Your task to perform on an android device: Is it going to rain today? Image 0: 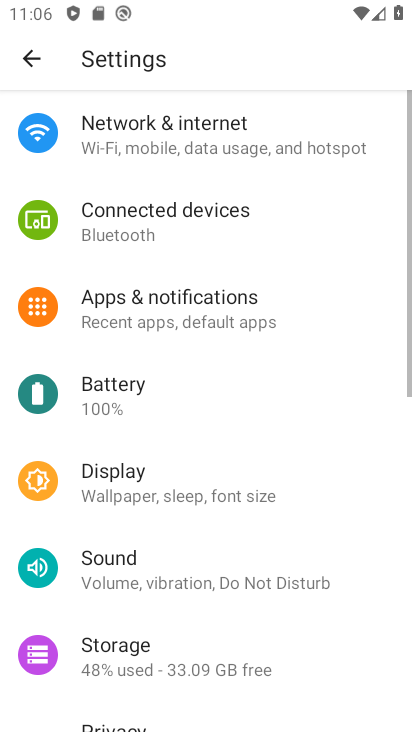
Step 0: press home button
Your task to perform on an android device: Is it going to rain today? Image 1: 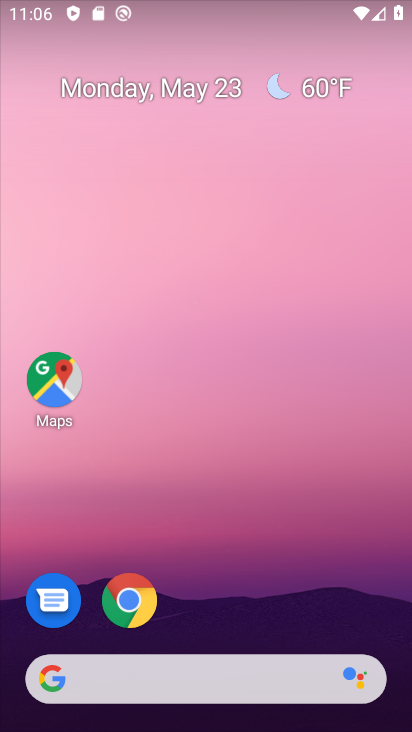
Step 1: drag from (247, 711) to (150, 151)
Your task to perform on an android device: Is it going to rain today? Image 2: 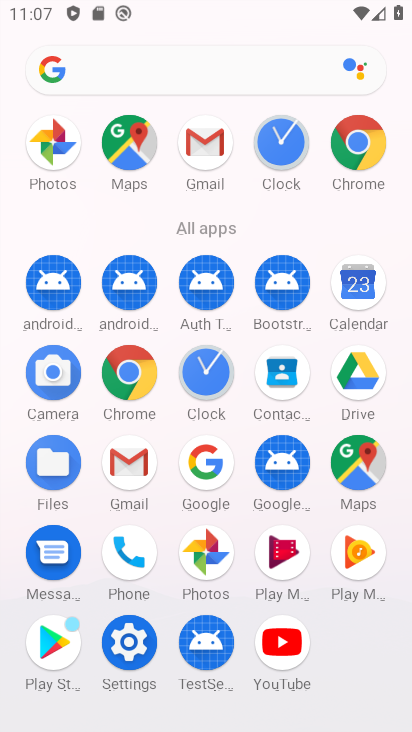
Step 2: click (97, 73)
Your task to perform on an android device: Is it going to rain today? Image 3: 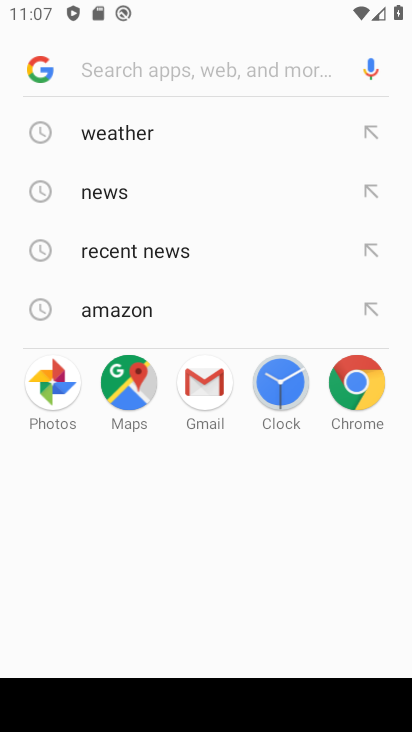
Step 3: click (152, 129)
Your task to perform on an android device: Is it going to rain today? Image 4: 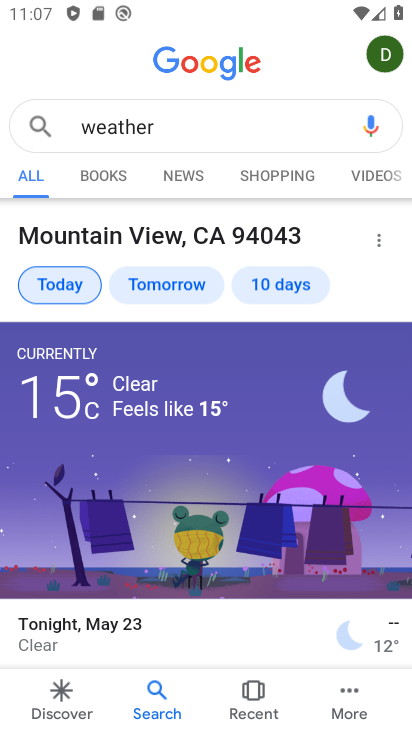
Step 4: task complete